Your task to perform on an android device: turn notification dots off Image 0: 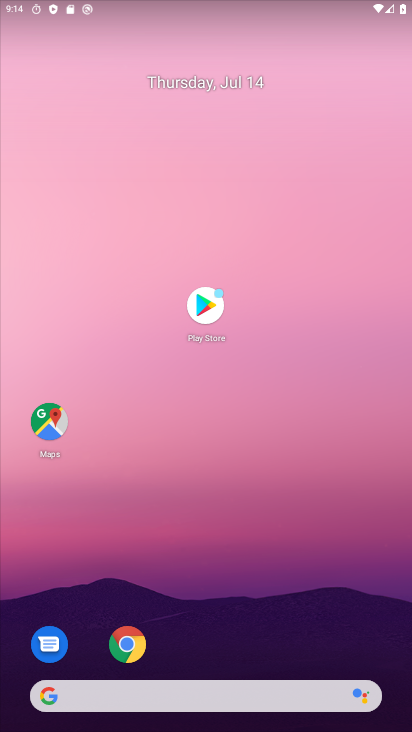
Step 0: drag from (229, 241) to (244, 35)
Your task to perform on an android device: turn notification dots off Image 1: 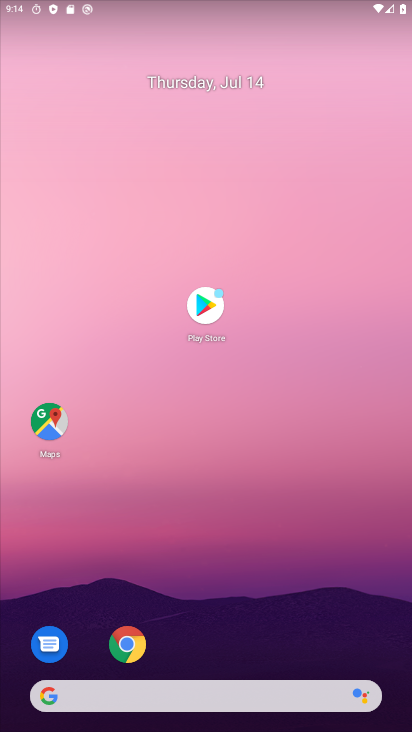
Step 1: drag from (214, 593) to (247, 109)
Your task to perform on an android device: turn notification dots off Image 2: 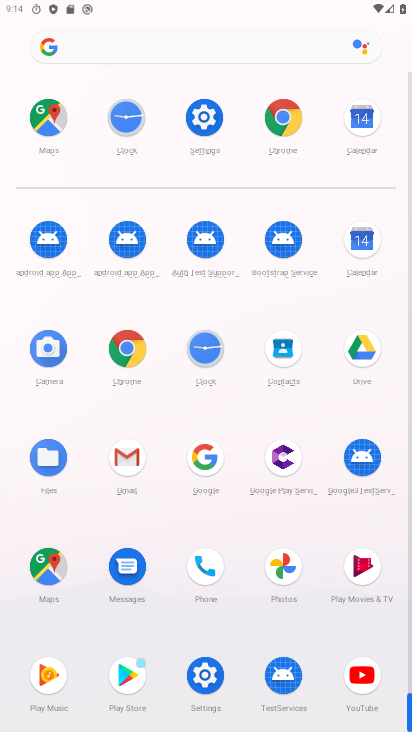
Step 2: click (196, 122)
Your task to perform on an android device: turn notification dots off Image 3: 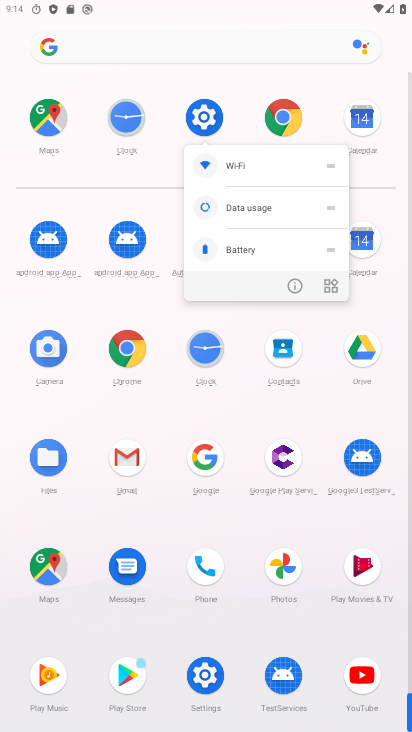
Step 3: click (294, 288)
Your task to perform on an android device: turn notification dots off Image 4: 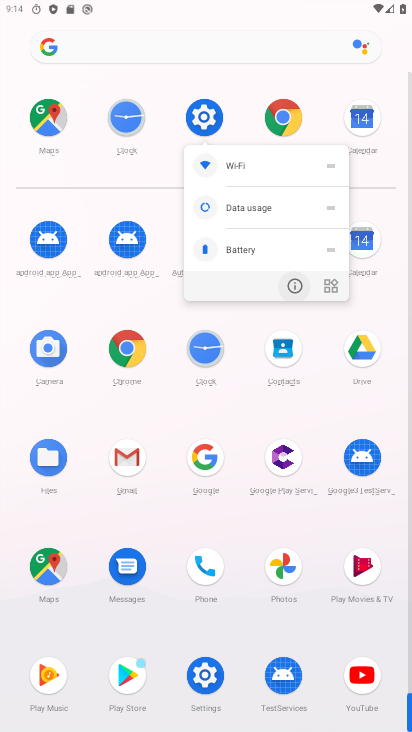
Step 4: click (293, 287)
Your task to perform on an android device: turn notification dots off Image 5: 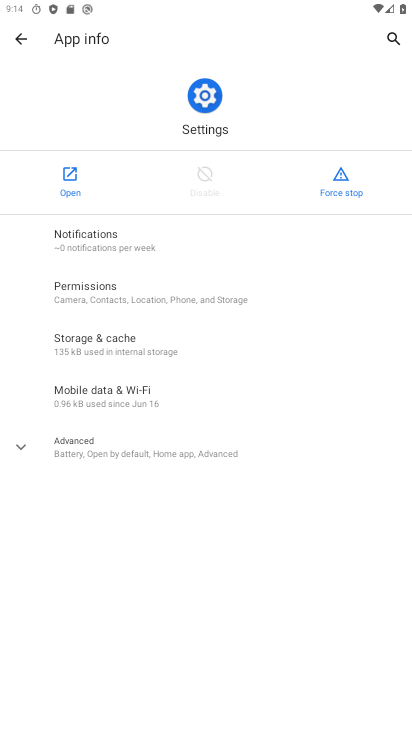
Step 5: click (56, 190)
Your task to perform on an android device: turn notification dots off Image 6: 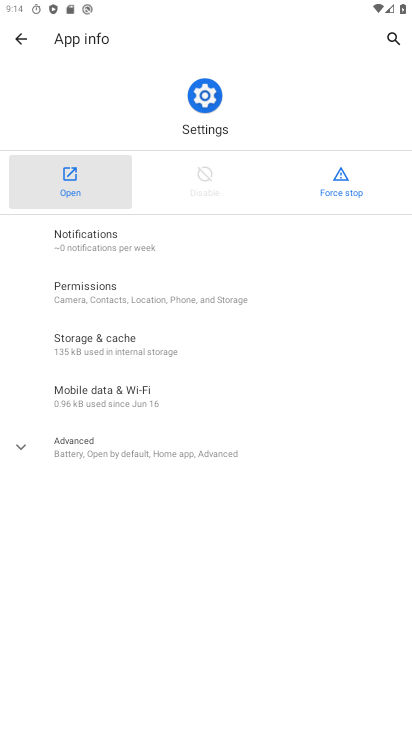
Step 6: click (56, 190)
Your task to perform on an android device: turn notification dots off Image 7: 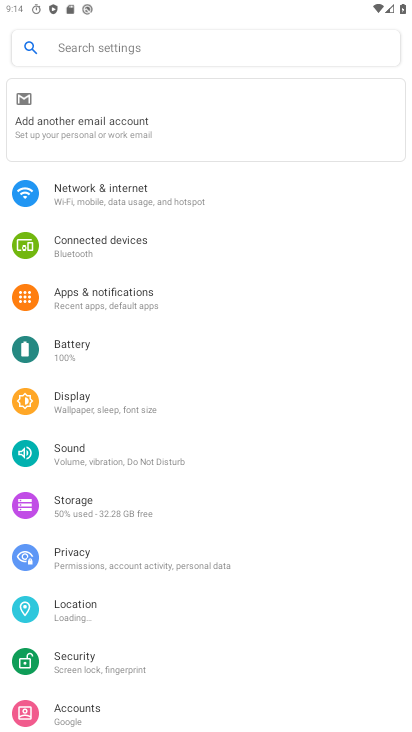
Step 7: drag from (177, 573) to (243, 178)
Your task to perform on an android device: turn notification dots off Image 8: 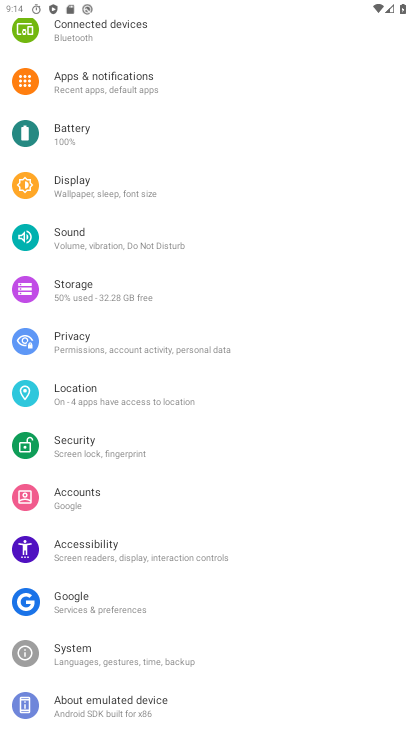
Step 8: click (103, 95)
Your task to perform on an android device: turn notification dots off Image 9: 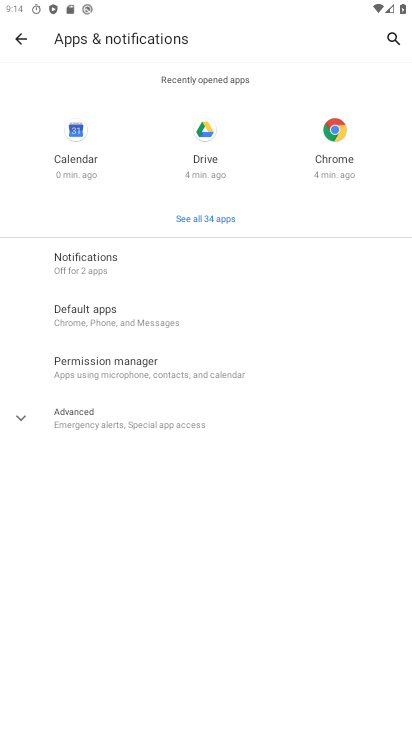
Step 9: click (92, 258)
Your task to perform on an android device: turn notification dots off Image 10: 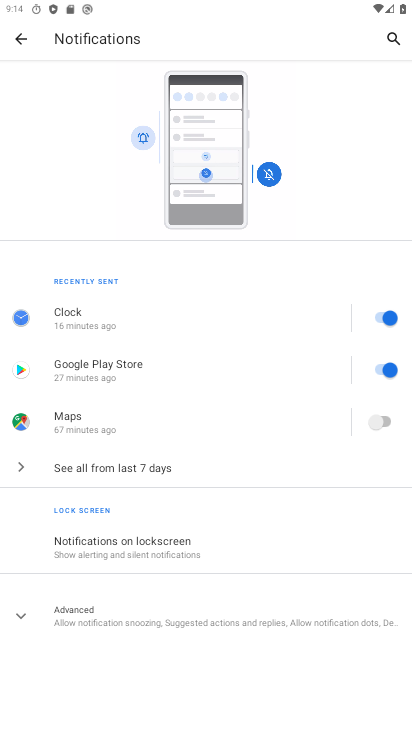
Step 10: drag from (221, 499) to (216, 130)
Your task to perform on an android device: turn notification dots off Image 11: 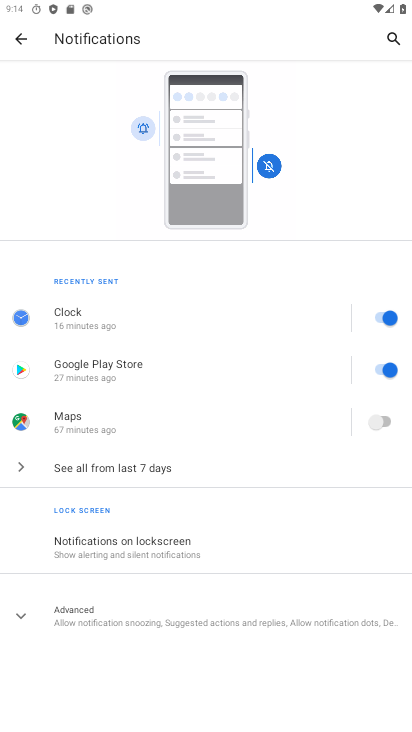
Step 11: click (89, 618)
Your task to perform on an android device: turn notification dots off Image 12: 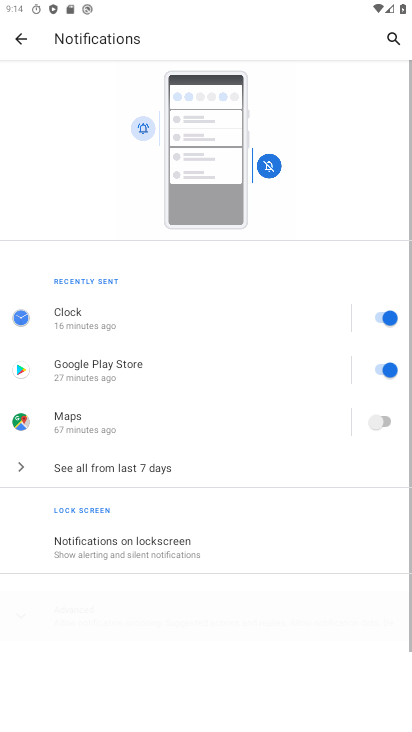
Step 12: drag from (155, 606) to (240, 129)
Your task to perform on an android device: turn notification dots off Image 13: 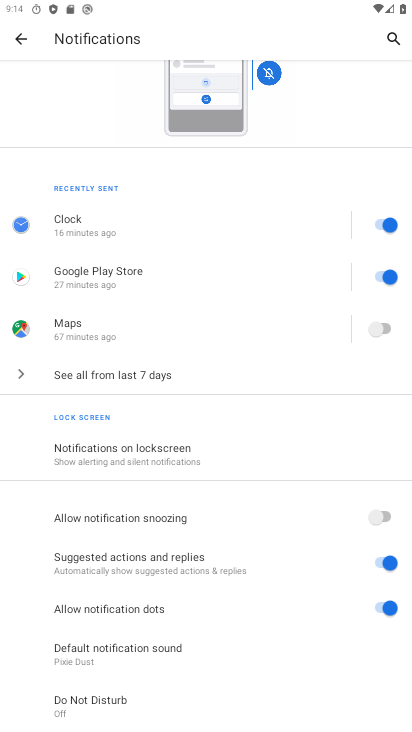
Step 13: drag from (178, 671) to (130, 306)
Your task to perform on an android device: turn notification dots off Image 14: 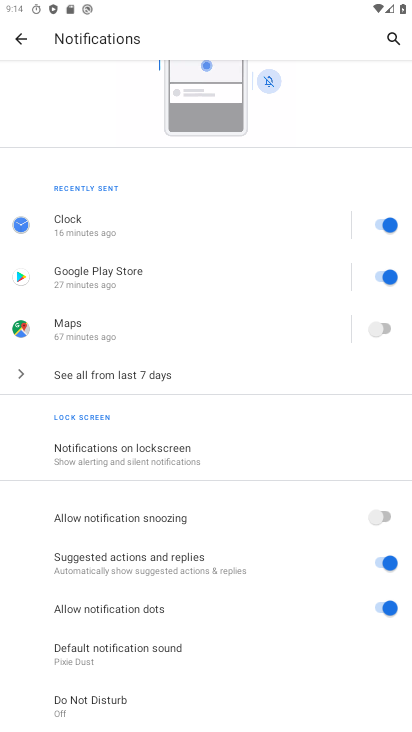
Step 14: click (389, 608)
Your task to perform on an android device: turn notification dots off Image 15: 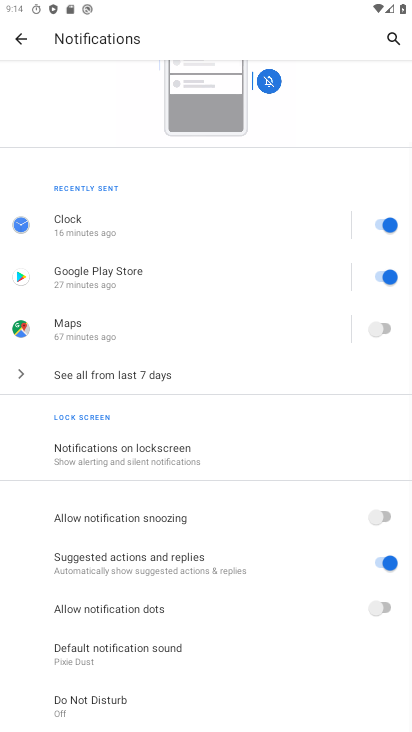
Step 15: task complete